Your task to perform on an android device: turn on notifications settings in the gmail app Image 0: 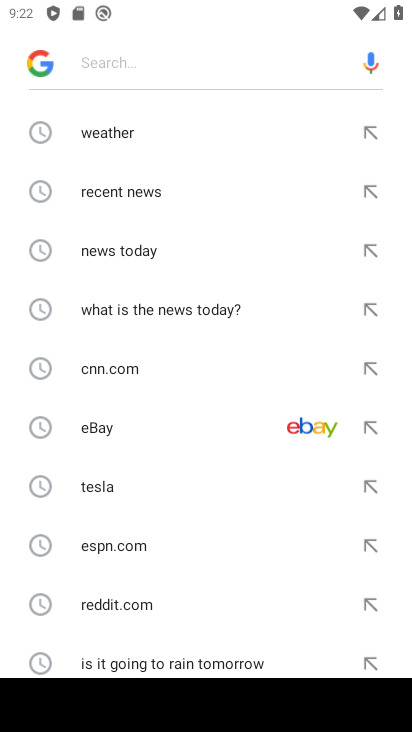
Step 0: press home button
Your task to perform on an android device: turn on notifications settings in the gmail app Image 1: 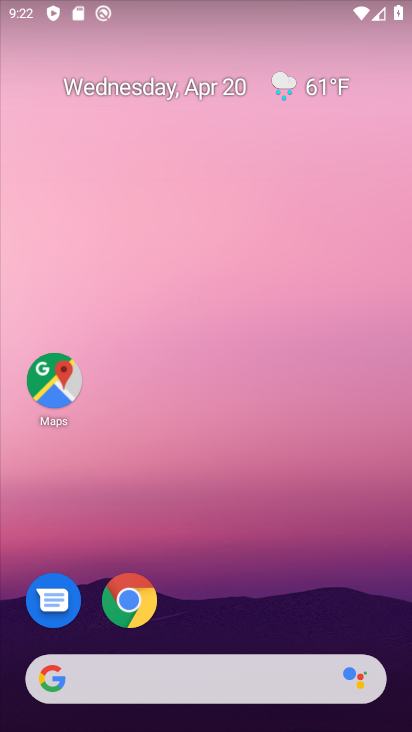
Step 1: drag from (195, 629) to (155, 27)
Your task to perform on an android device: turn on notifications settings in the gmail app Image 2: 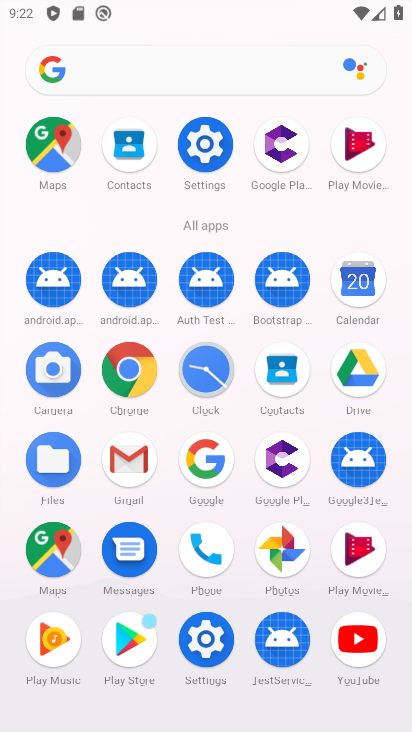
Step 2: click (130, 459)
Your task to perform on an android device: turn on notifications settings in the gmail app Image 3: 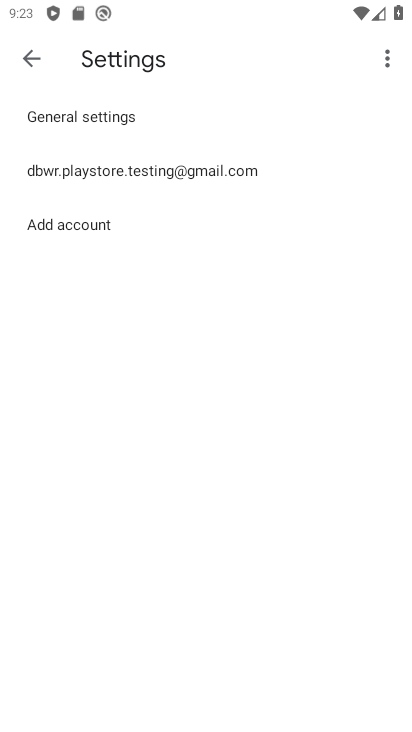
Step 3: click (248, 175)
Your task to perform on an android device: turn on notifications settings in the gmail app Image 4: 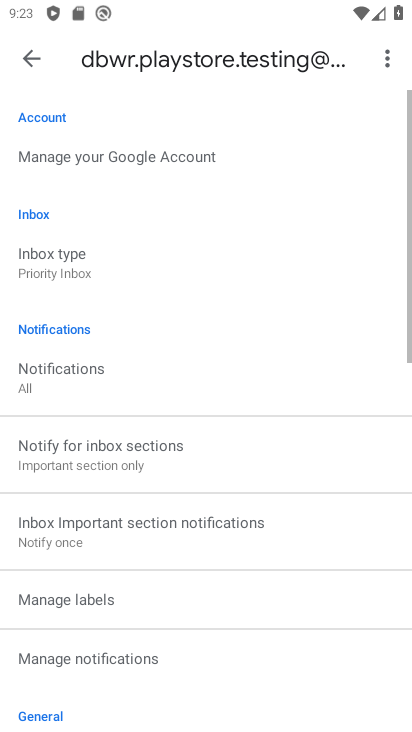
Step 4: click (136, 376)
Your task to perform on an android device: turn on notifications settings in the gmail app Image 5: 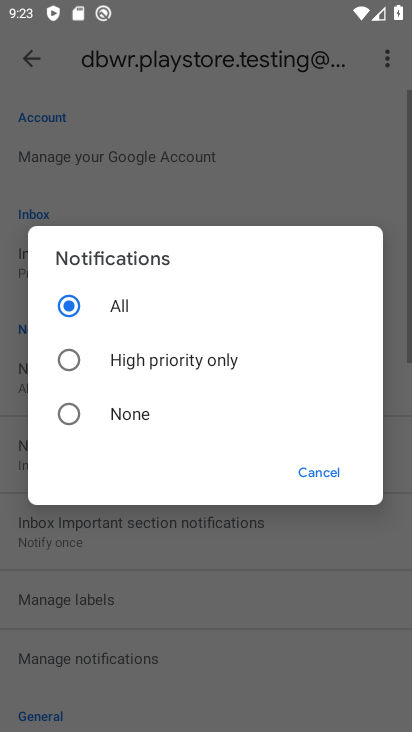
Step 5: task complete